Your task to perform on an android device: toggle pop-ups in chrome Image 0: 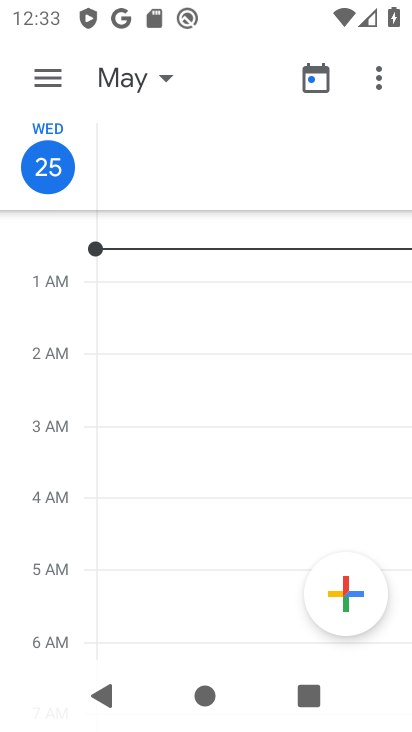
Step 0: press home button
Your task to perform on an android device: toggle pop-ups in chrome Image 1: 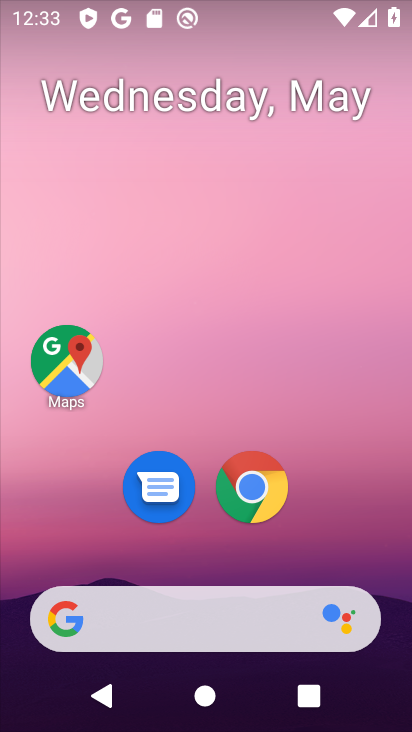
Step 1: click (251, 494)
Your task to perform on an android device: toggle pop-ups in chrome Image 2: 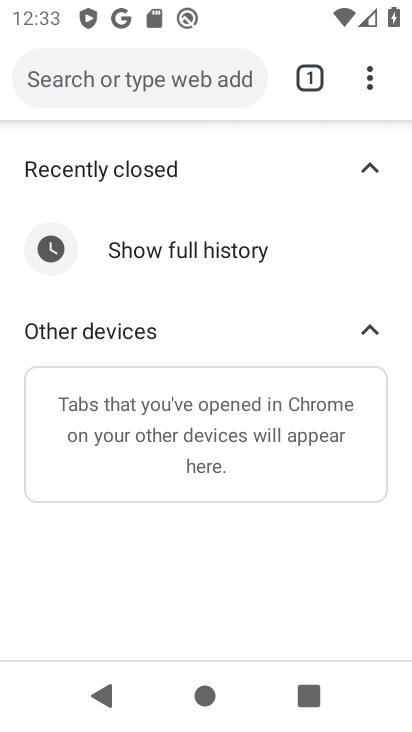
Step 2: click (374, 69)
Your task to perform on an android device: toggle pop-ups in chrome Image 3: 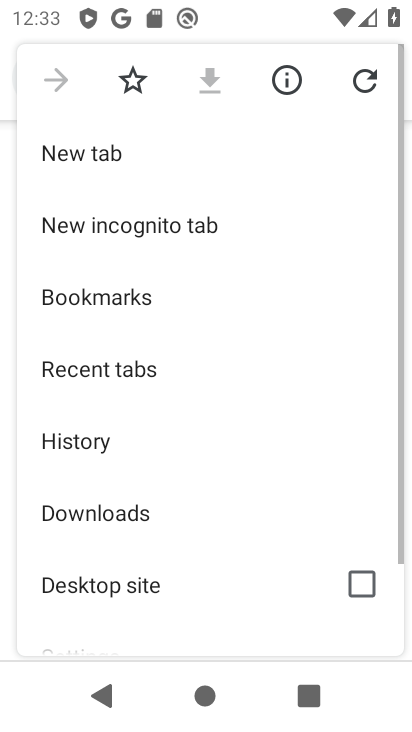
Step 3: drag from (108, 530) to (188, 186)
Your task to perform on an android device: toggle pop-ups in chrome Image 4: 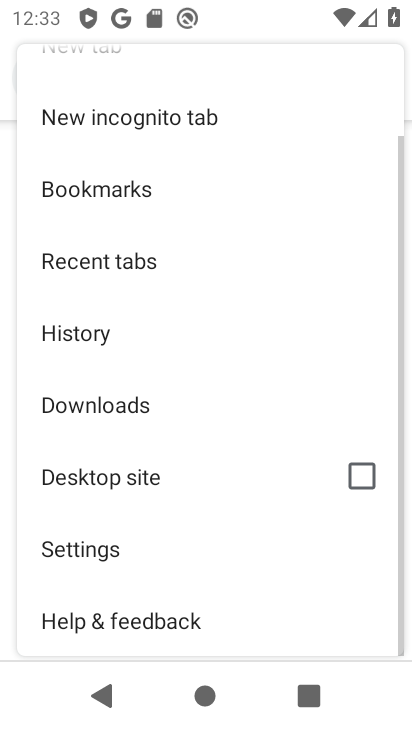
Step 4: click (78, 555)
Your task to perform on an android device: toggle pop-ups in chrome Image 5: 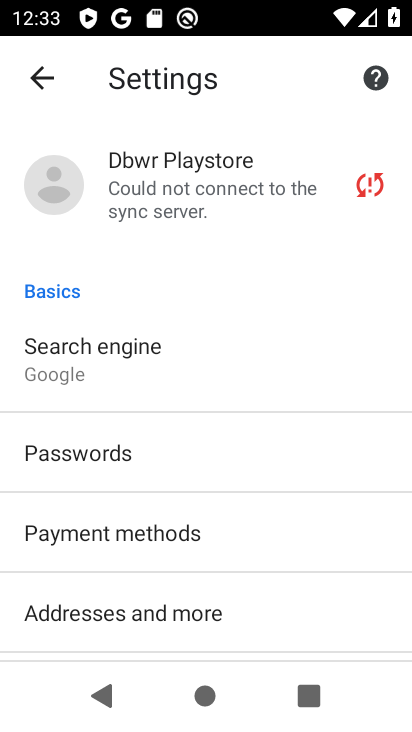
Step 5: drag from (111, 531) to (225, 198)
Your task to perform on an android device: toggle pop-ups in chrome Image 6: 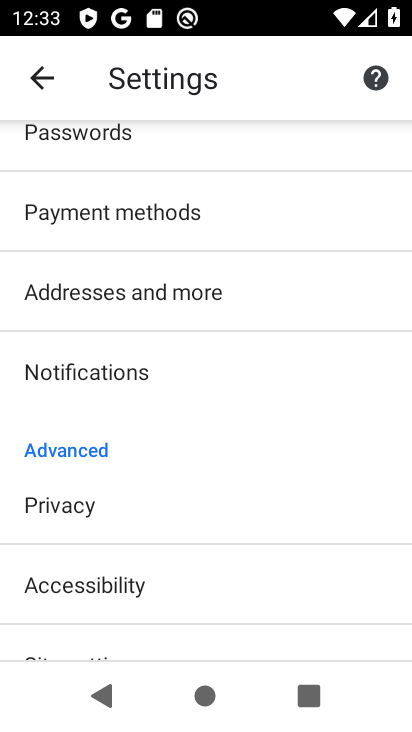
Step 6: drag from (117, 600) to (204, 293)
Your task to perform on an android device: toggle pop-ups in chrome Image 7: 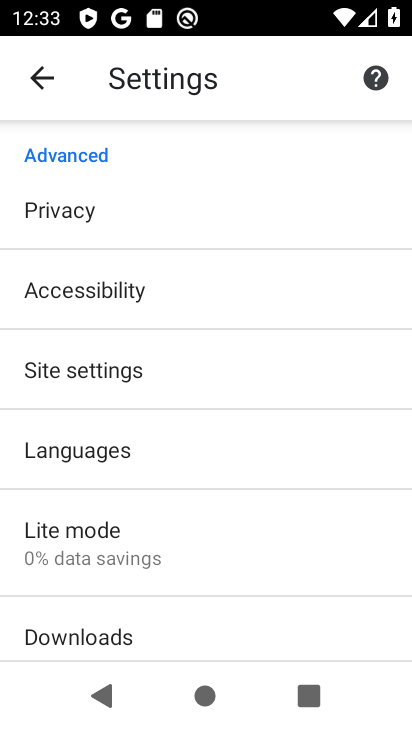
Step 7: click (116, 379)
Your task to perform on an android device: toggle pop-ups in chrome Image 8: 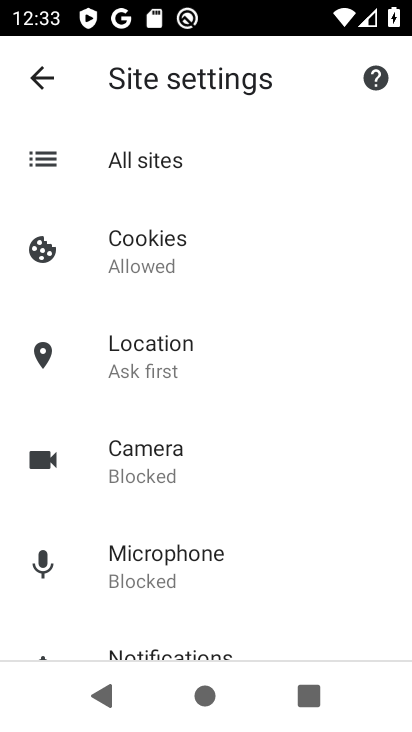
Step 8: drag from (164, 564) to (222, 356)
Your task to perform on an android device: toggle pop-ups in chrome Image 9: 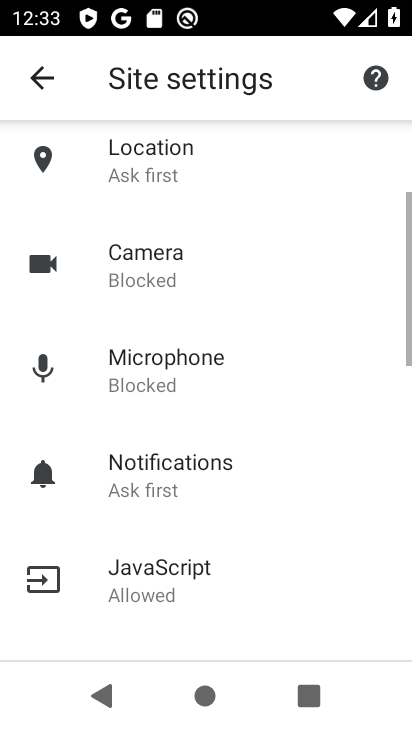
Step 9: drag from (170, 549) to (215, 300)
Your task to perform on an android device: toggle pop-ups in chrome Image 10: 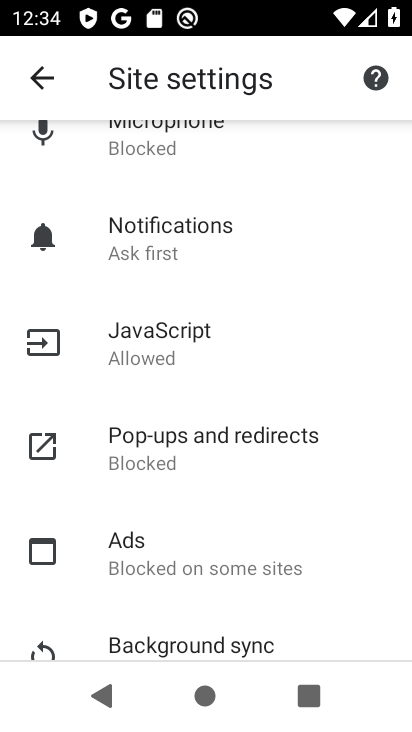
Step 10: click (204, 449)
Your task to perform on an android device: toggle pop-ups in chrome Image 11: 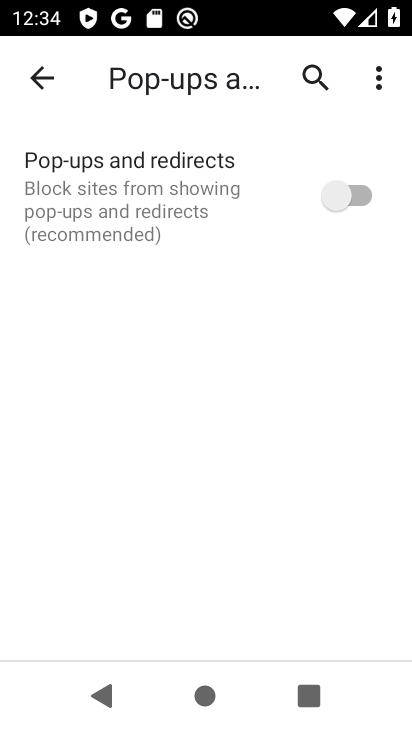
Step 11: click (360, 199)
Your task to perform on an android device: toggle pop-ups in chrome Image 12: 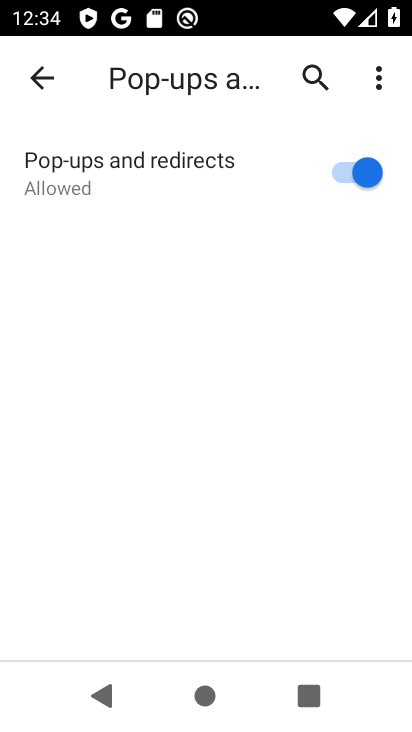
Step 12: task complete